Your task to perform on an android device: turn off smart reply in the gmail app Image 0: 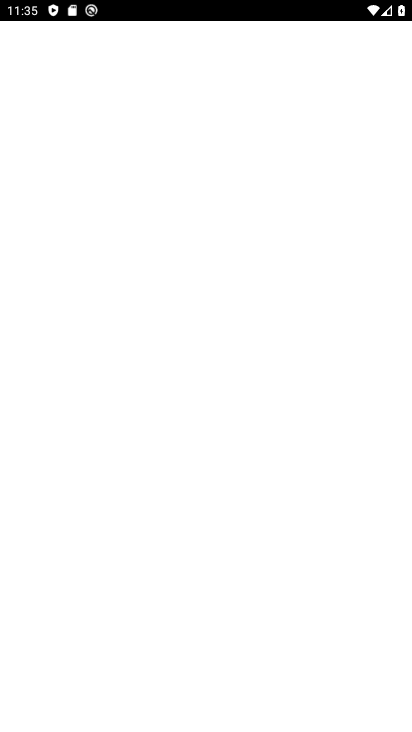
Step 0: drag from (245, 657) to (267, 393)
Your task to perform on an android device: turn off smart reply in the gmail app Image 1: 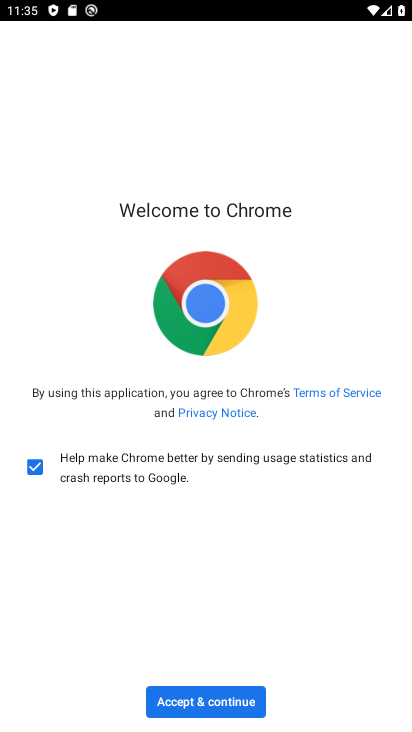
Step 1: press home button
Your task to perform on an android device: turn off smart reply in the gmail app Image 2: 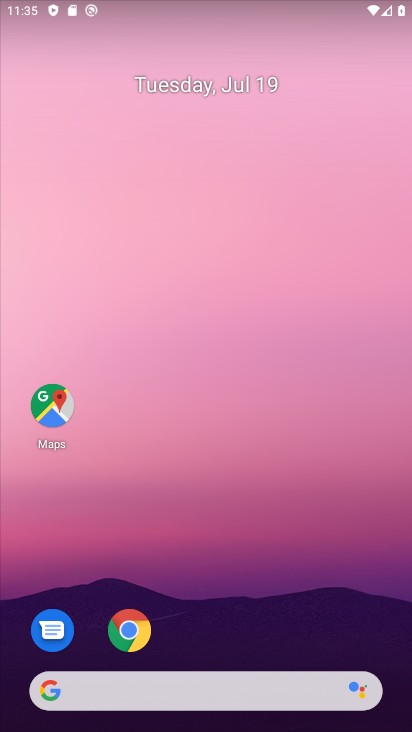
Step 2: drag from (208, 672) to (239, 288)
Your task to perform on an android device: turn off smart reply in the gmail app Image 3: 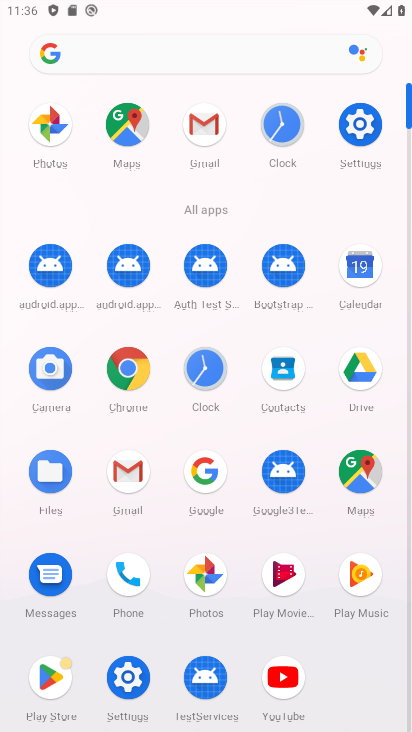
Step 3: click (131, 485)
Your task to perform on an android device: turn off smart reply in the gmail app Image 4: 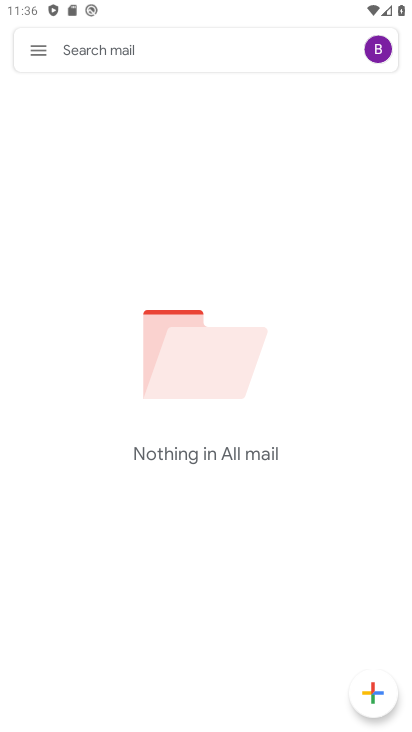
Step 4: click (44, 57)
Your task to perform on an android device: turn off smart reply in the gmail app Image 5: 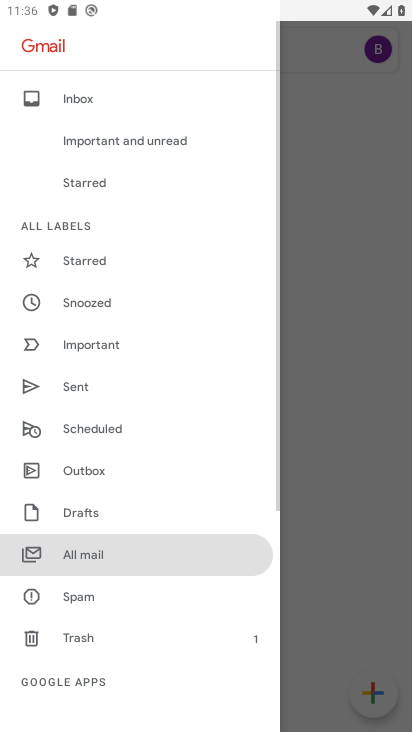
Step 5: drag from (75, 608) to (141, 175)
Your task to perform on an android device: turn off smart reply in the gmail app Image 6: 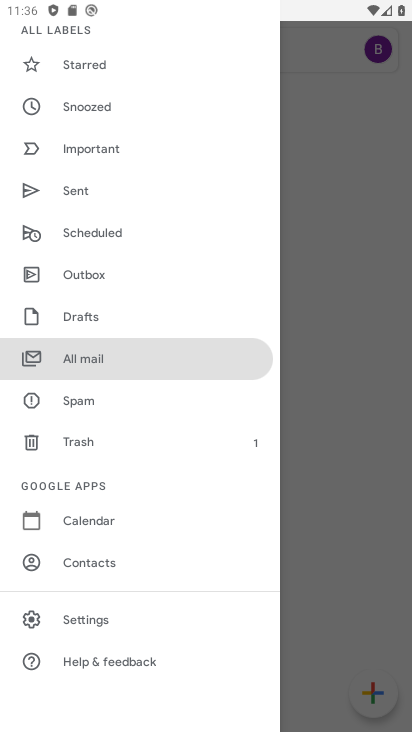
Step 6: click (84, 621)
Your task to perform on an android device: turn off smart reply in the gmail app Image 7: 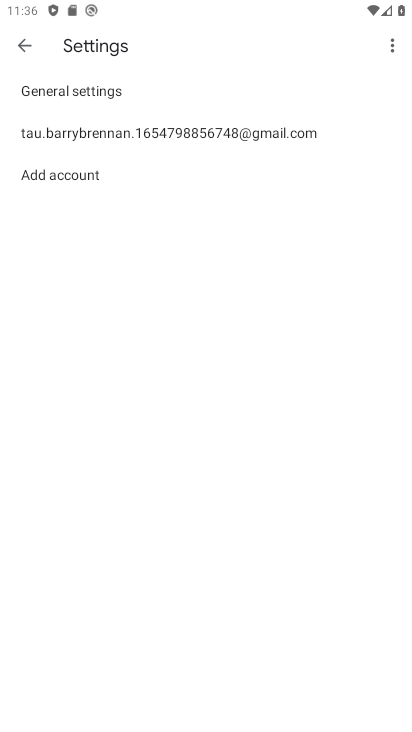
Step 7: click (97, 140)
Your task to perform on an android device: turn off smart reply in the gmail app Image 8: 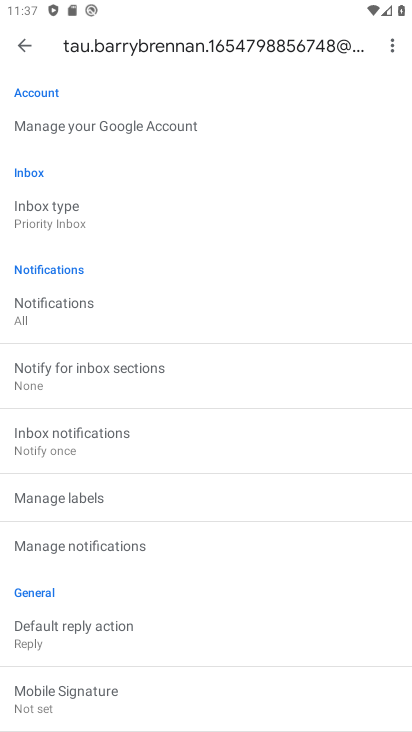
Step 8: drag from (118, 545) to (195, 191)
Your task to perform on an android device: turn off smart reply in the gmail app Image 9: 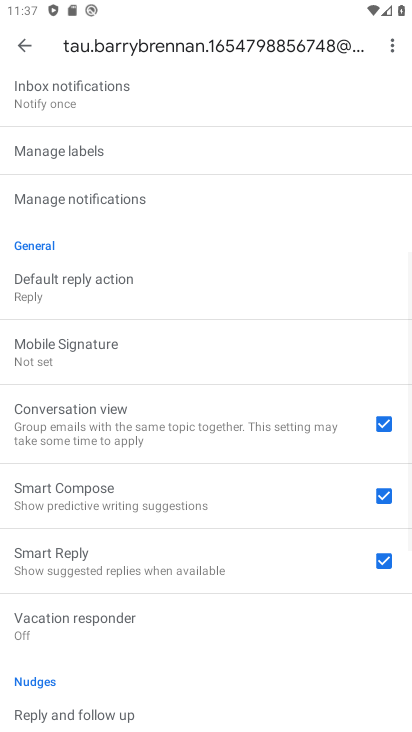
Step 9: click (384, 563)
Your task to perform on an android device: turn off smart reply in the gmail app Image 10: 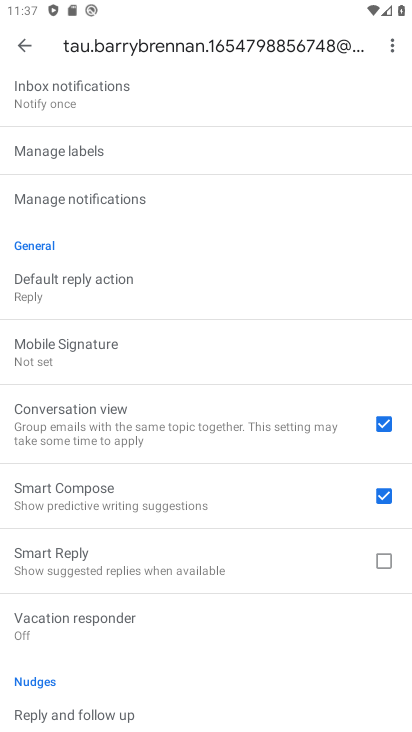
Step 10: task complete